Your task to perform on an android device: open chrome privacy settings Image 0: 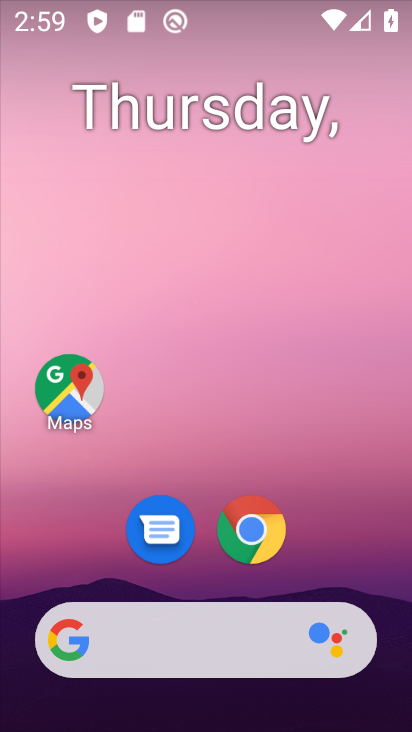
Step 0: click (250, 527)
Your task to perform on an android device: open chrome privacy settings Image 1: 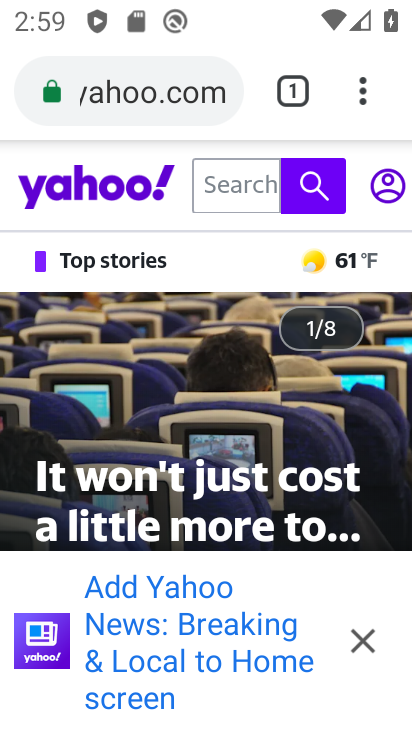
Step 1: click (365, 95)
Your task to perform on an android device: open chrome privacy settings Image 2: 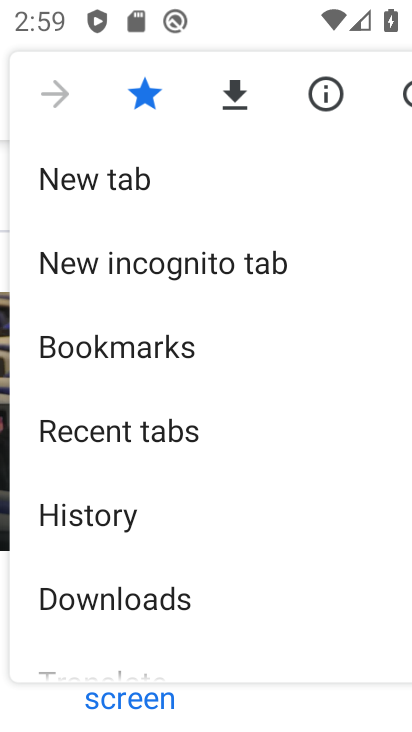
Step 2: drag from (148, 474) to (197, 376)
Your task to perform on an android device: open chrome privacy settings Image 3: 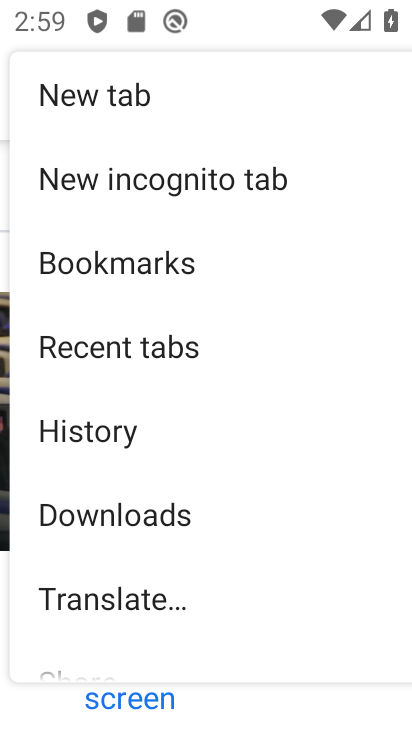
Step 3: drag from (172, 538) to (248, 412)
Your task to perform on an android device: open chrome privacy settings Image 4: 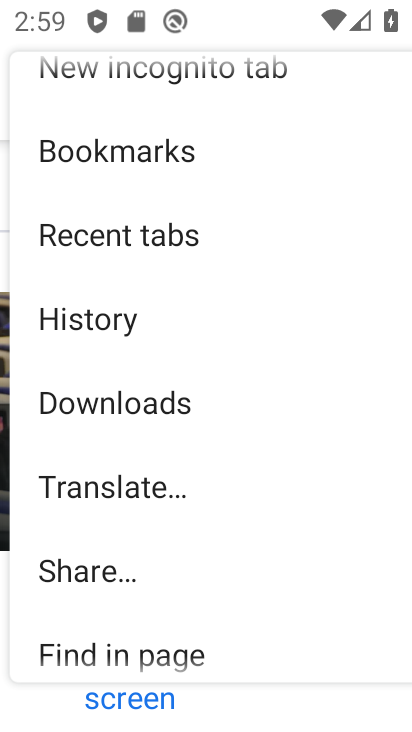
Step 4: drag from (186, 550) to (272, 407)
Your task to perform on an android device: open chrome privacy settings Image 5: 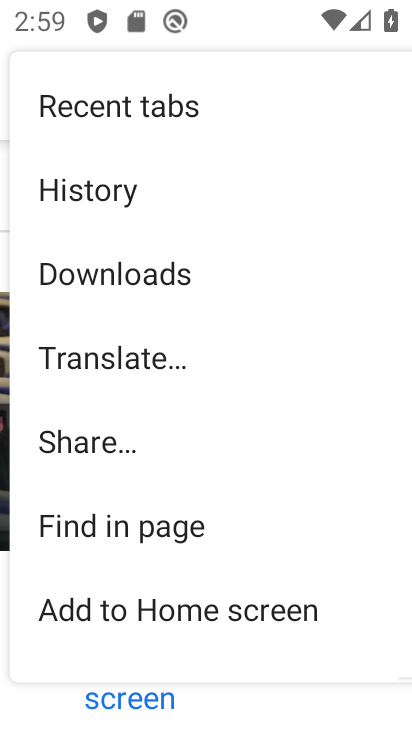
Step 5: drag from (221, 534) to (299, 388)
Your task to perform on an android device: open chrome privacy settings Image 6: 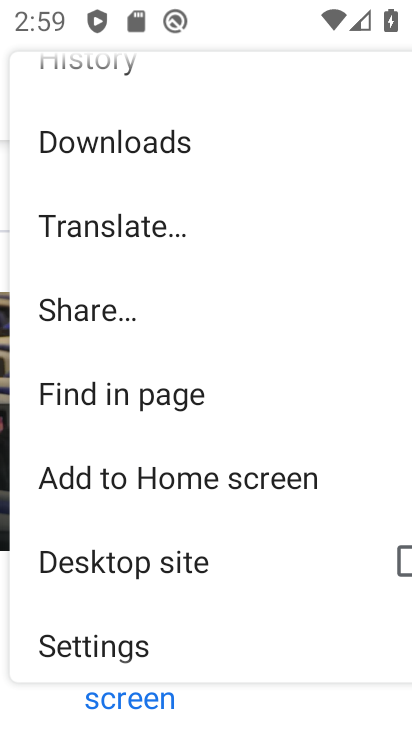
Step 6: drag from (159, 593) to (216, 462)
Your task to perform on an android device: open chrome privacy settings Image 7: 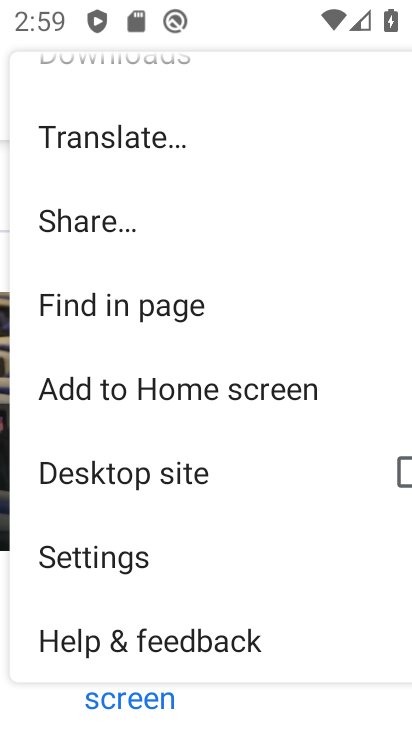
Step 7: click (117, 556)
Your task to perform on an android device: open chrome privacy settings Image 8: 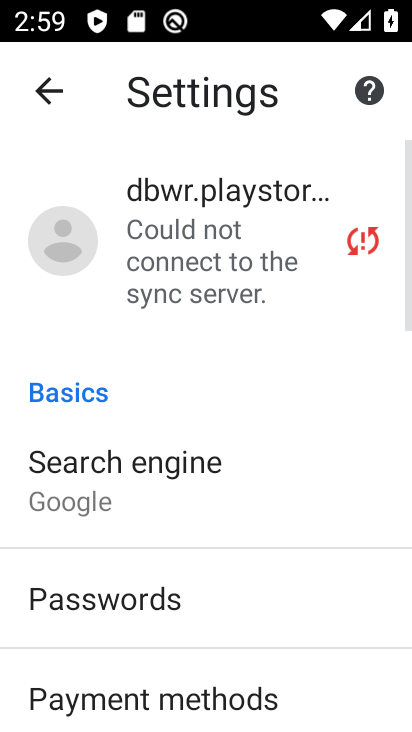
Step 8: drag from (193, 548) to (224, 475)
Your task to perform on an android device: open chrome privacy settings Image 9: 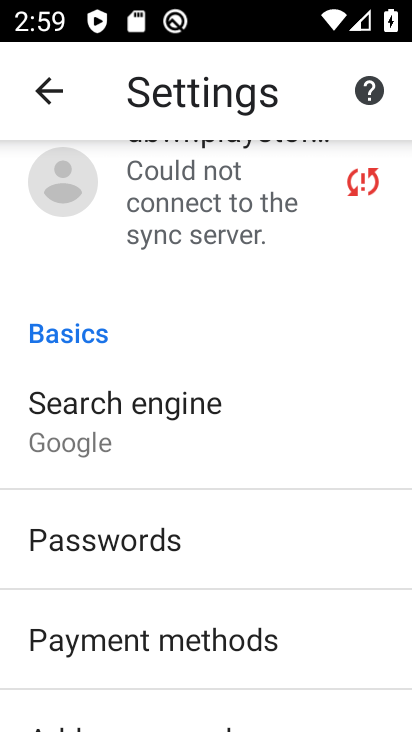
Step 9: drag from (207, 567) to (271, 411)
Your task to perform on an android device: open chrome privacy settings Image 10: 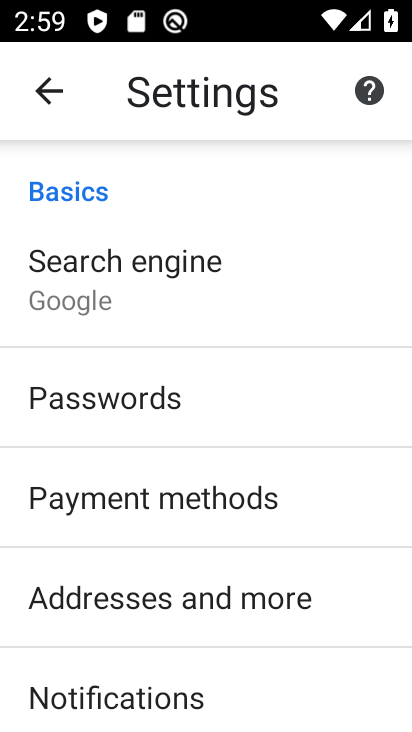
Step 10: drag from (174, 625) to (256, 500)
Your task to perform on an android device: open chrome privacy settings Image 11: 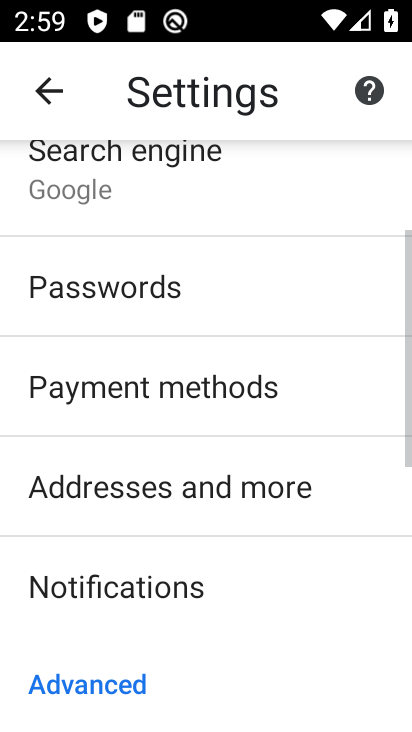
Step 11: drag from (200, 643) to (269, 527)
Your task to perform on an android device: open chrome privacy settings Image 12: 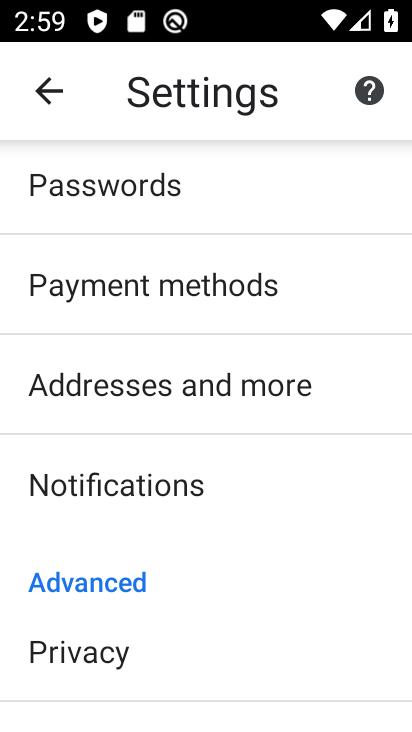
Step 12: click (100, 660)
Your task to perform on an android device: open chrome privacy settings Image 13: 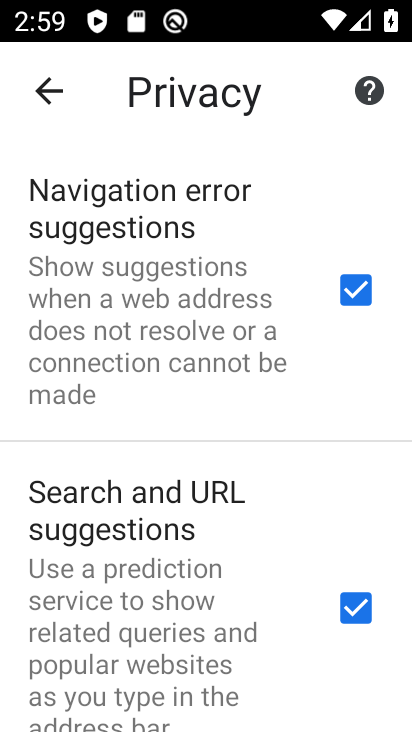
Step 13: task complete